Your task to perform on an android device: Search for pizza restaurants on Maps Image 0: 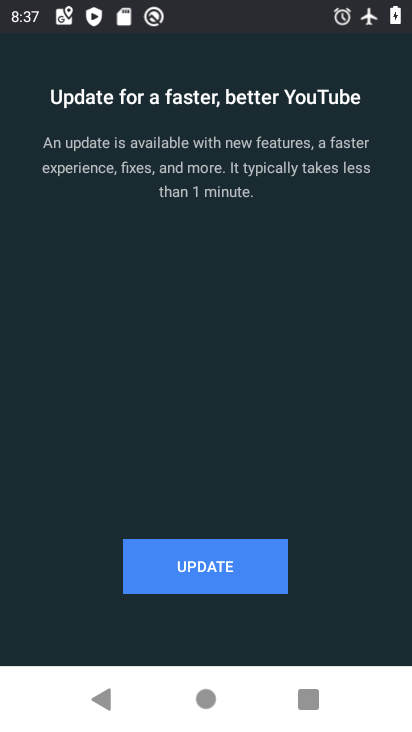
Step 0: press home button
Your task to perform on an android device: Search for pizza restaurants on Maps Image 1: 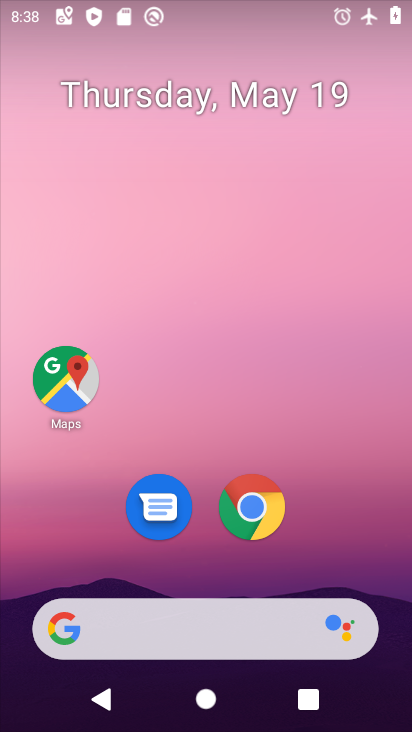
Step 1: drag from (215, 728) to (217, 154)
Your task to perform on an android device: Search for pizza restaurants on Maps Image 2: 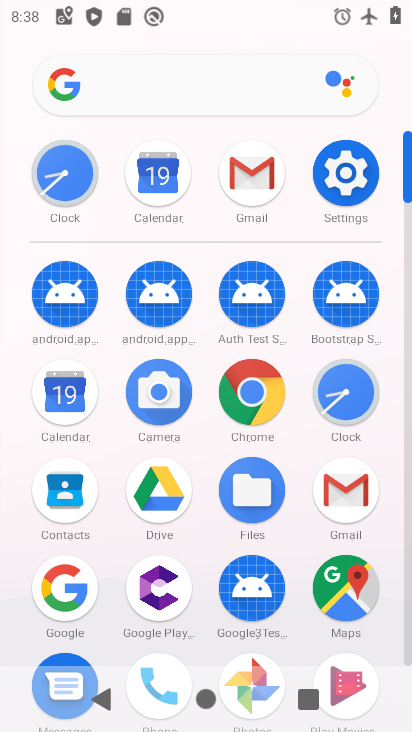
Step 2: click (351, 589)
Your task to perform on an android device: Search for pizza restaurants on Maps Image 3: 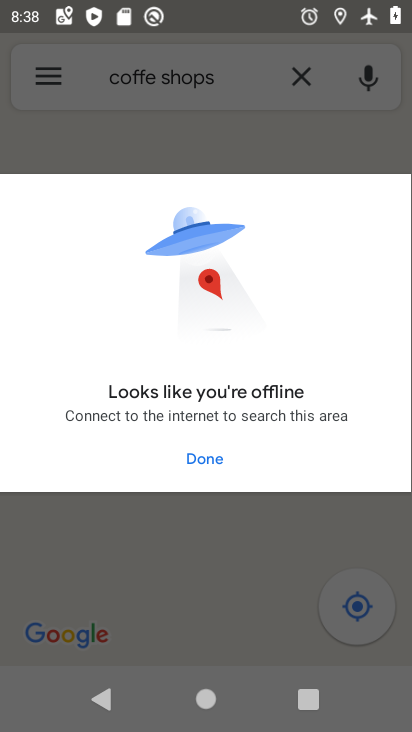
Step 3: task complete